Your task to perform on an android device: Go to Yahoo.com Image 0: 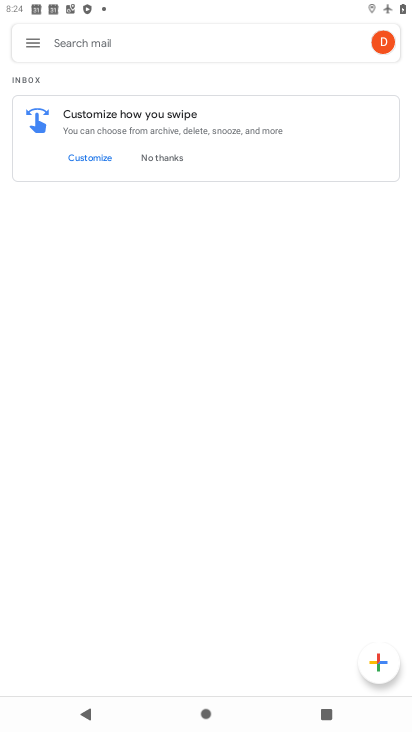
Step 0: press home button
Your task to perform on an android device: Go to Yahoo.com Image 1: 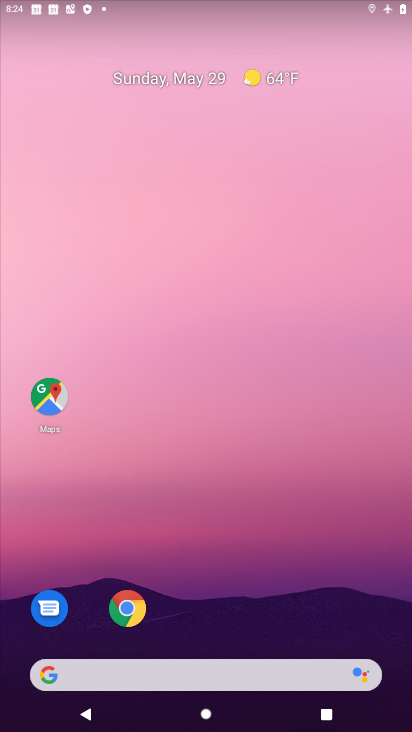
Step 1: click (145, 605)
Your task to perform on an android device: Go to Yahoo.com Image 2: 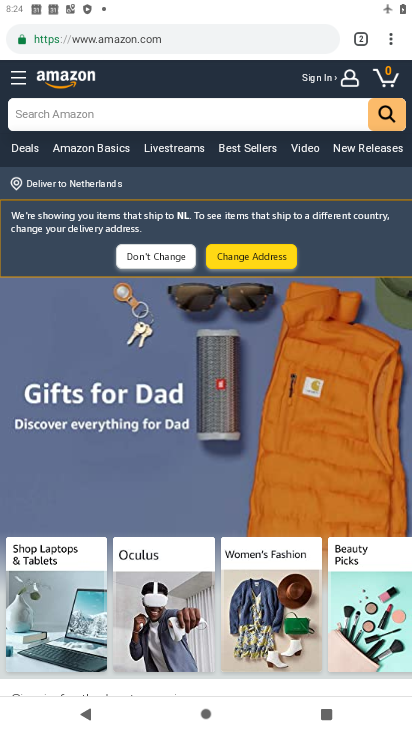
Step 2: click (391, 43)
Your task to perform on an android device: Go to Yahoo.com Image 3: 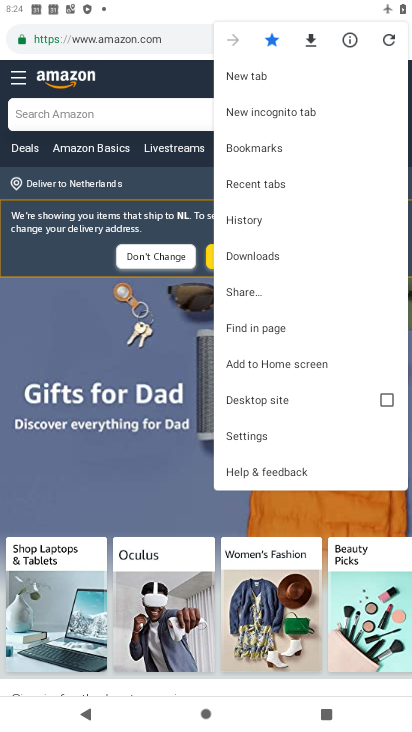
Step 3: click (266, 69)
Your task to perform on an android device: Go to Yahoo.com Image 4: 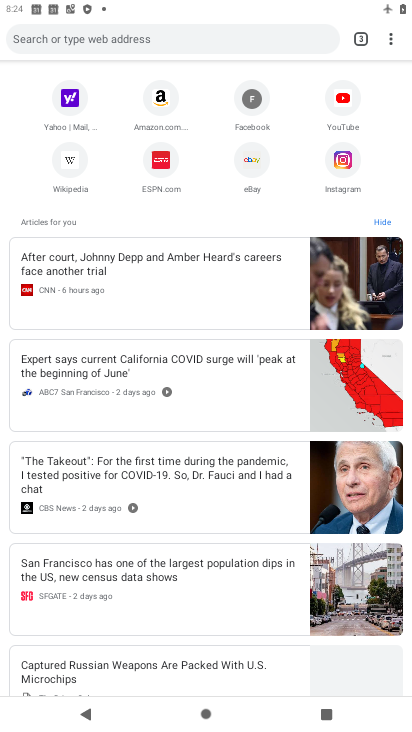
Step 4: click (60, 108)
Your task to perform on an android device: Go to Yahoo.com Image 5: 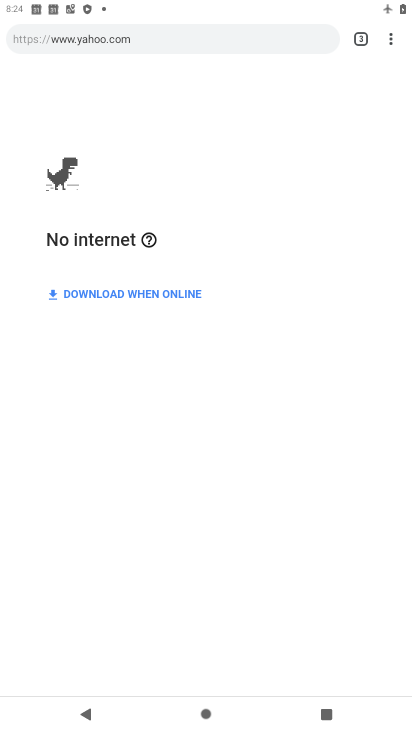
Step 5: task complete